Your task to perform on an android device: turn off translation in the chrome app Image 0: 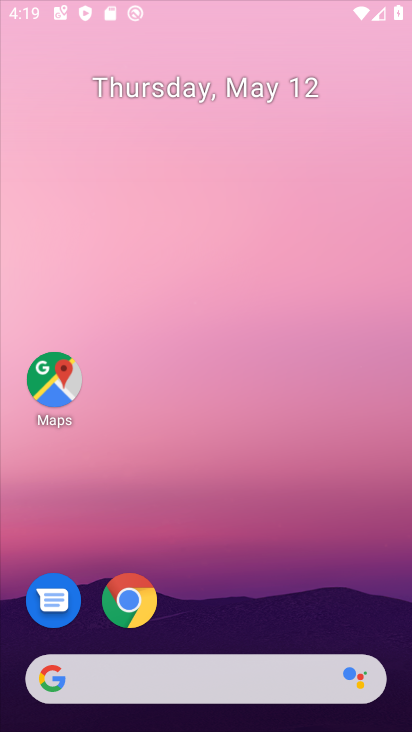
Step 0: drag from (230, 595) to (297, 236)
Your task to perform on an android device: turn off translation in the chrome app Image 1: 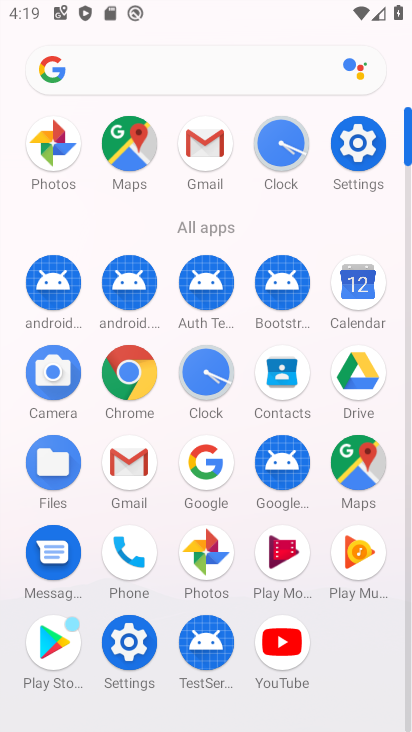
Step 1: click (112, 360)
Your task to perform on an android device: turn off translation in the chrome app Image 2: 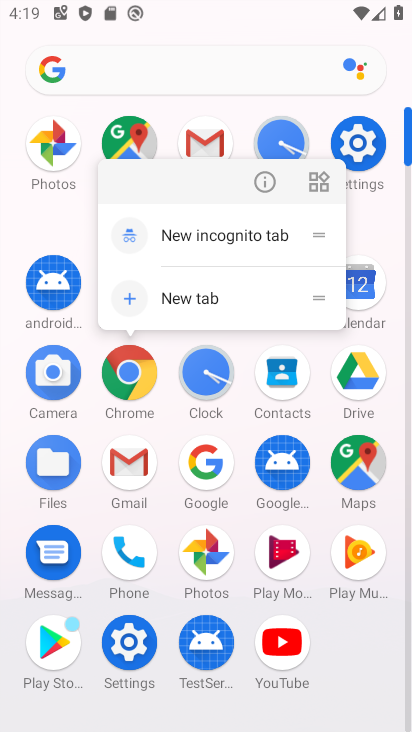
Step 2: drag from (227, 619) to (261, 180)
Your task to perform on an android device: turn off translation in the chrome app Image 3: 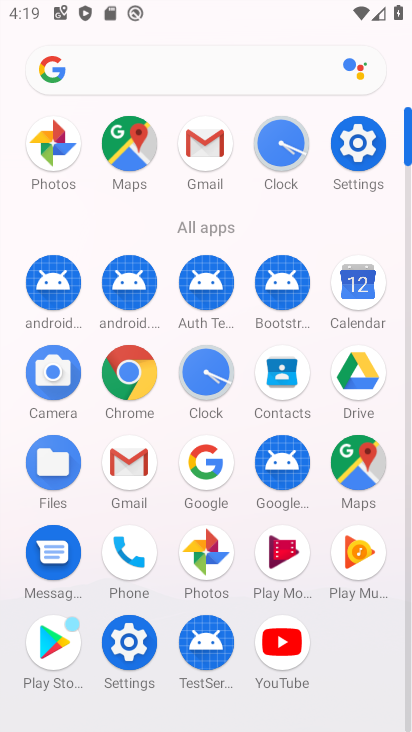
Step 3: click (115, 353)
Your task to perform on an android device: turn off translation in the chrome app Image 4: 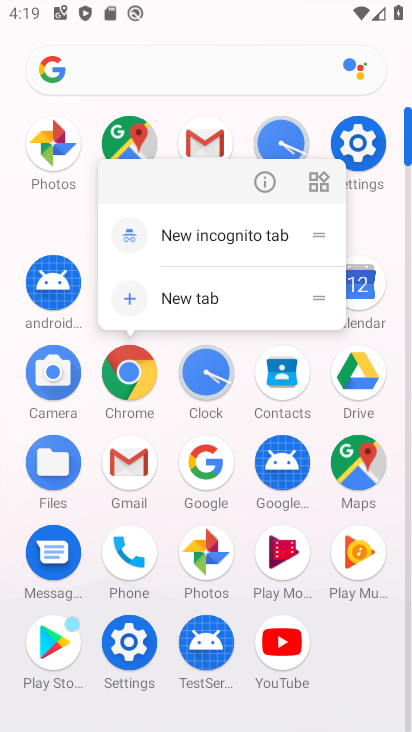
Step 4: click (257, 175)
Your task to perform on an android device: turn off translation in the chrome app Image 5: 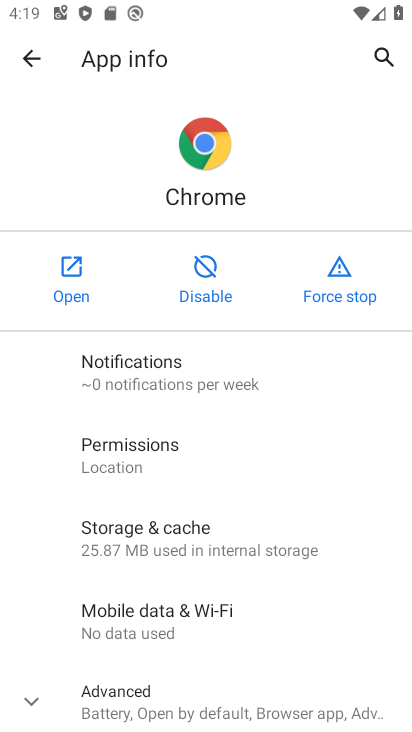
Step 5: click (68, 276)
Your task to perform on an android device: turn off translation in the chrome app Image 6: 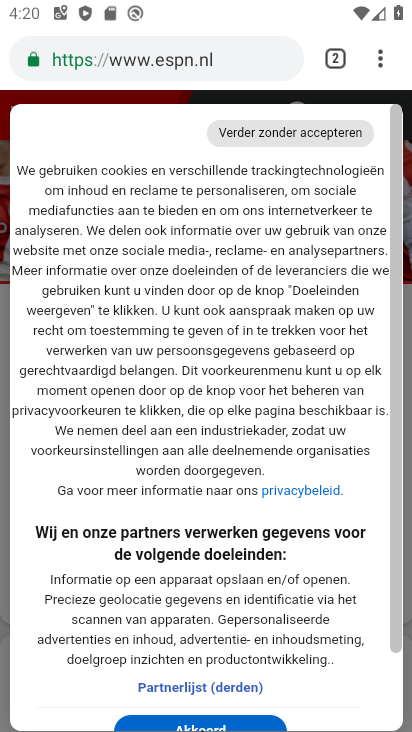
Step 6: drag from (377, 75) to (210, 613)
Your task to perform on an android device: turn off translation in the chrome app Image 7: 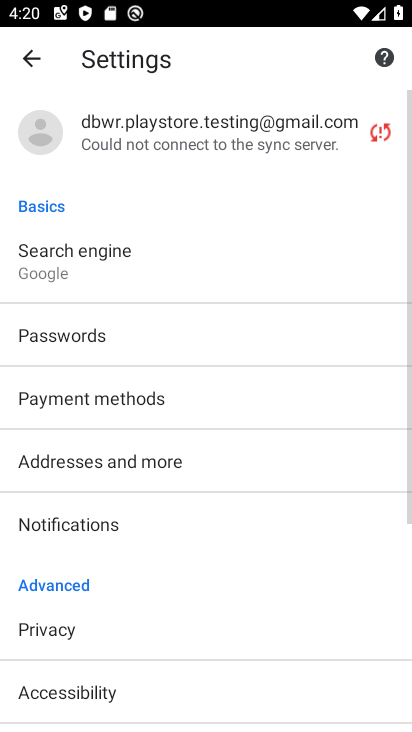
Step 7: drag from (194, 544) to (280, 82)
Your task to perform on an android device: turn off translation in the chrome app Image 8: 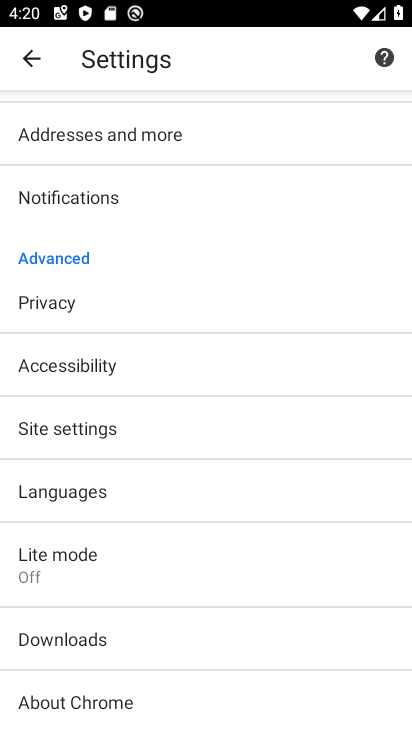
Step 8: click (86, 480)
Your task to perform on an android device: turn off translation in the chrome app Image 9: 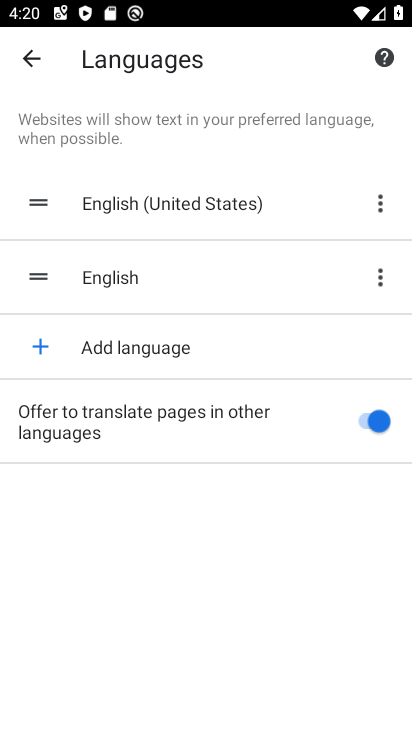
Step 9: click (361, 424)
Your task to perform on an android device: turn off translation in the chrome app Image 10: 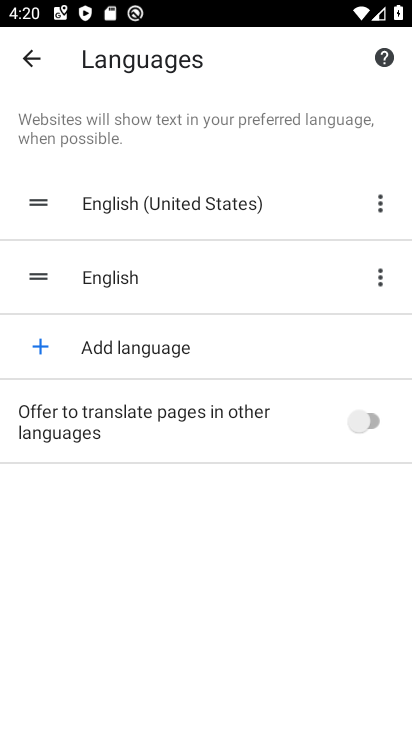
Step 10: task complete